Your task to perform on an android device: turn off airplane mode Image 0: 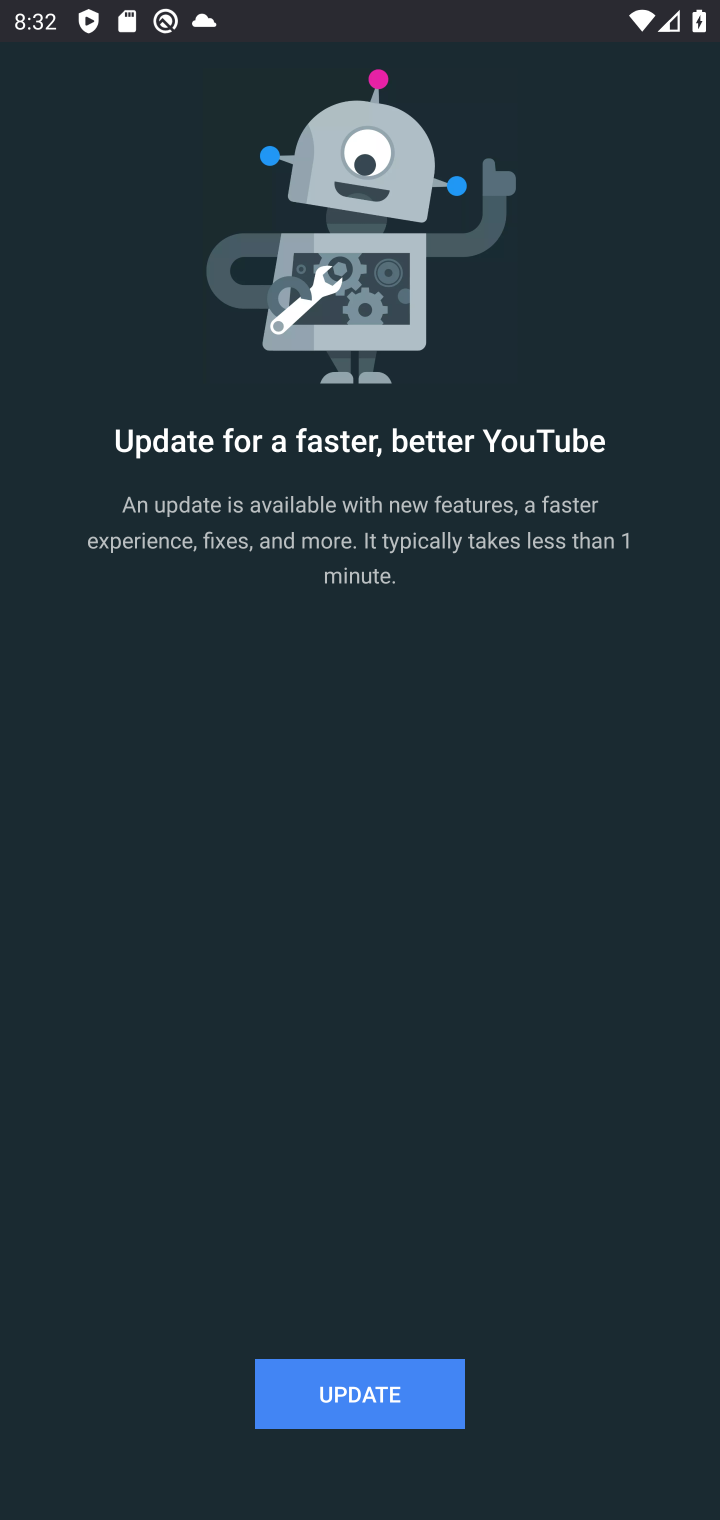
Step 0: press home button
Your task to perform on an android device: turn off airplane mode Image 1: 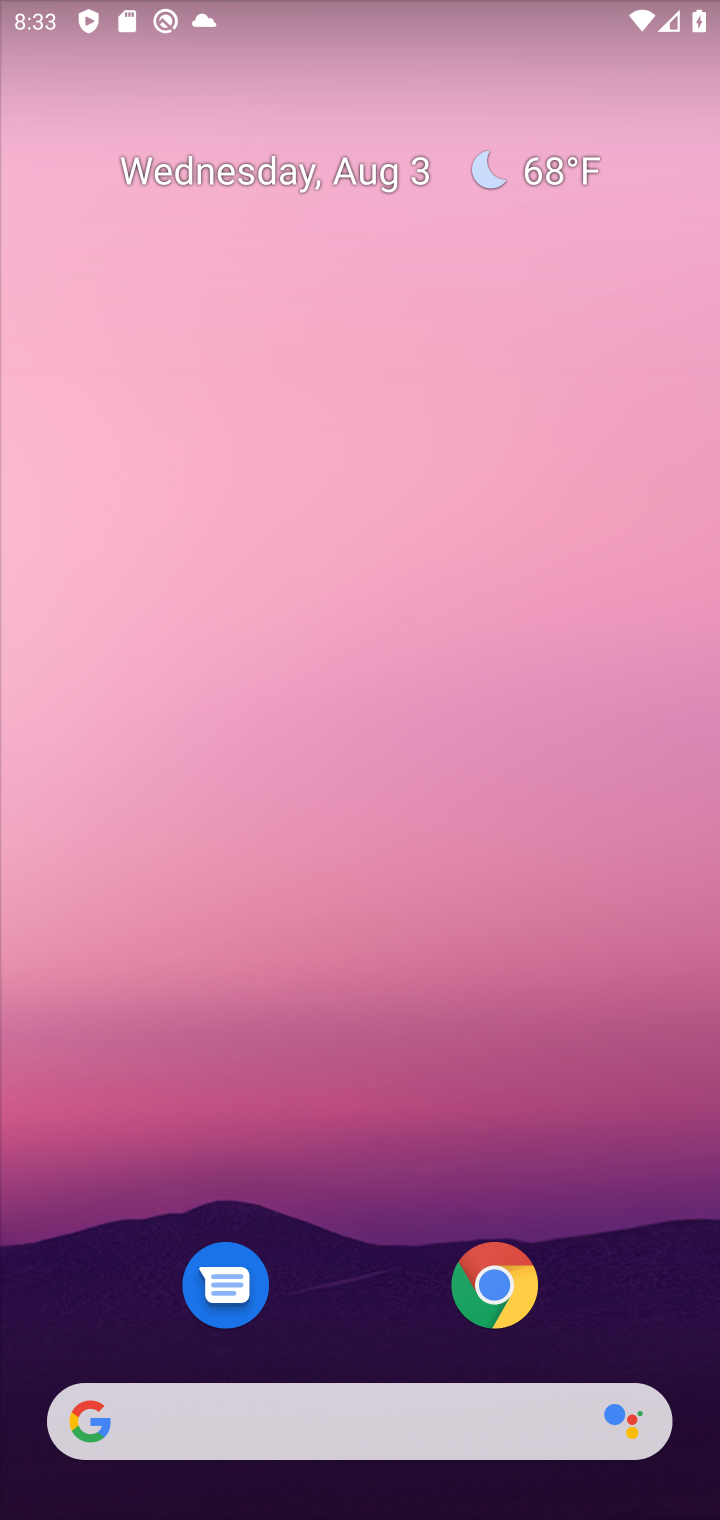
Step 1: task complete